Your task to perform on an android device: change notification settings in the gmail app Image 0: 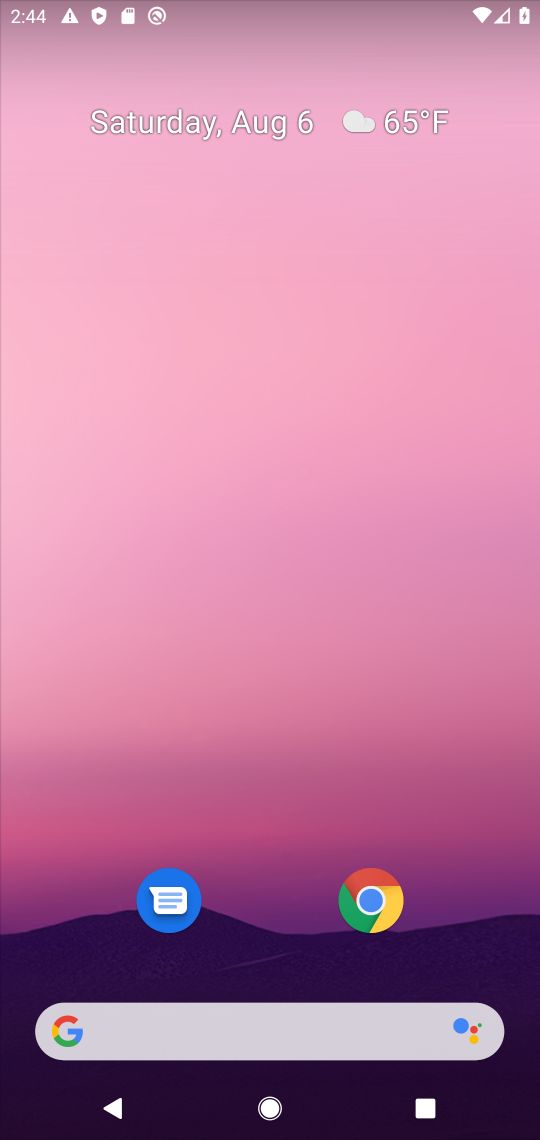
Step 0: press home button
Your task to perform on an android device: change notification settings in the gmail app Image 1: 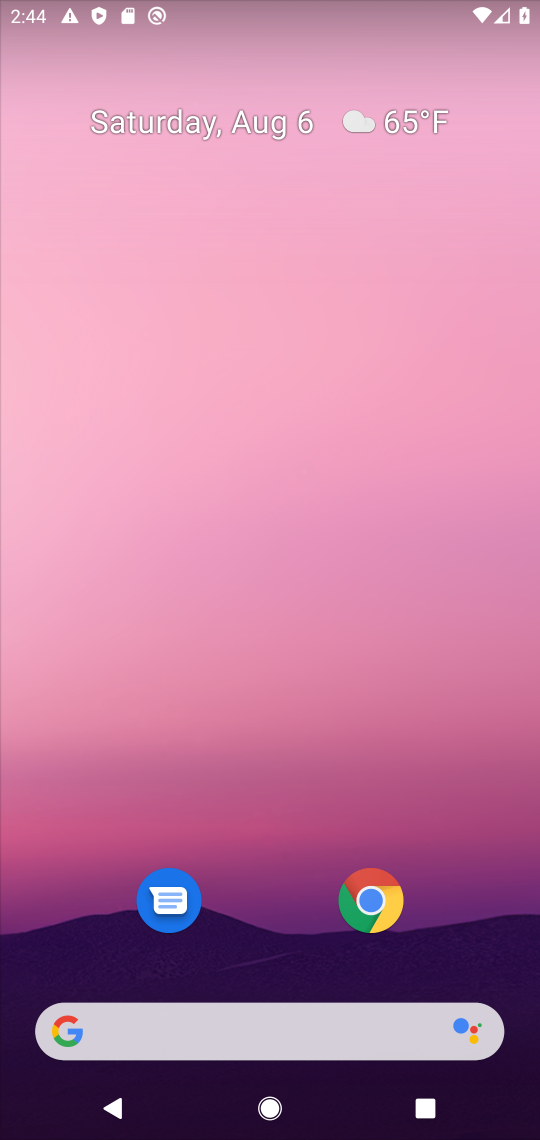
Step 1: press home button
Your task to perform on an android device: change notification settings in the gmail app Image 2: 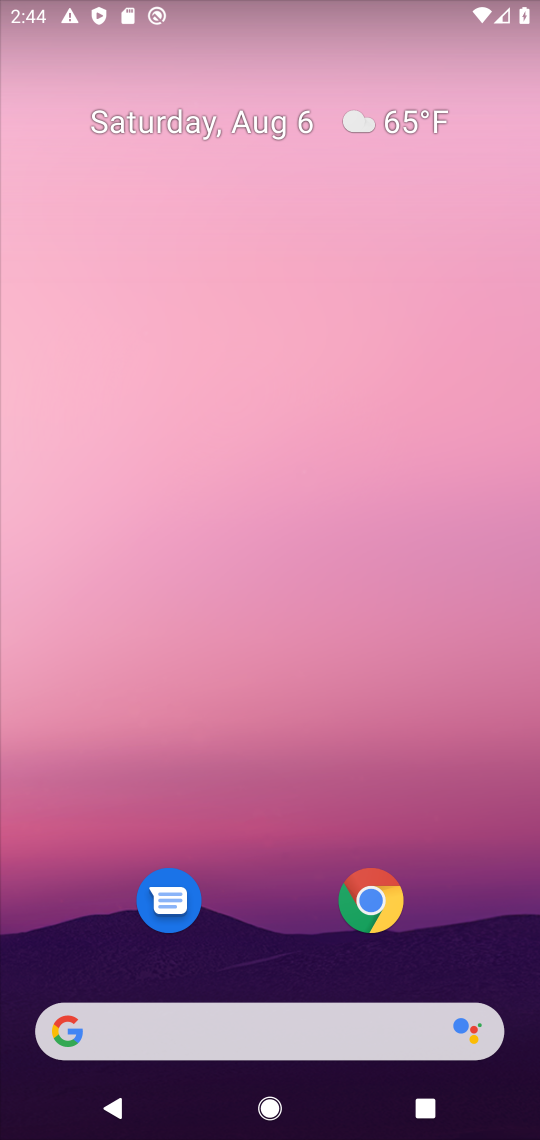
Step 2: drag from (262, 935) to (291, 0)
Your task to perform on an android device: change notification settings in the gmail app Image 3: 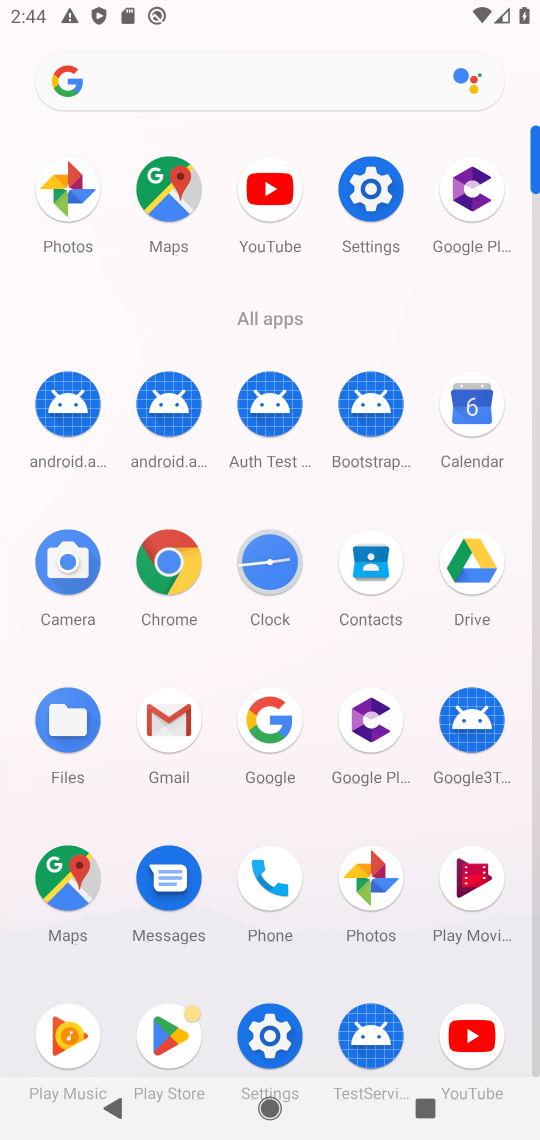
Step 3: click (159, 723)
Your task to perform on an android device: change notification settings in the gmail app Image 4: 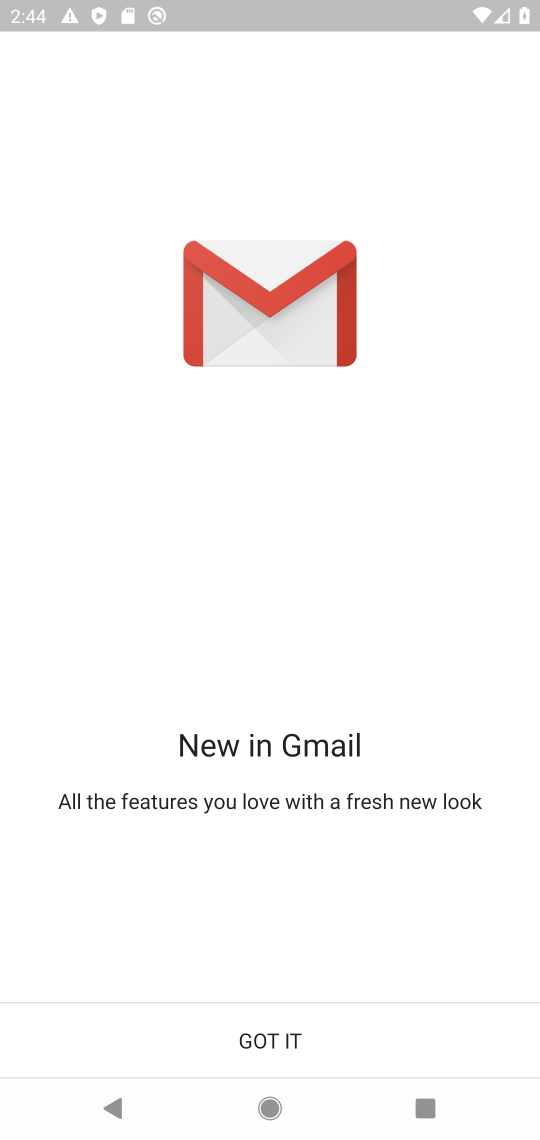
Step 4: click (268, 1037)
Your task to perform on an android device: change notification settings in the gmail app Image 5: 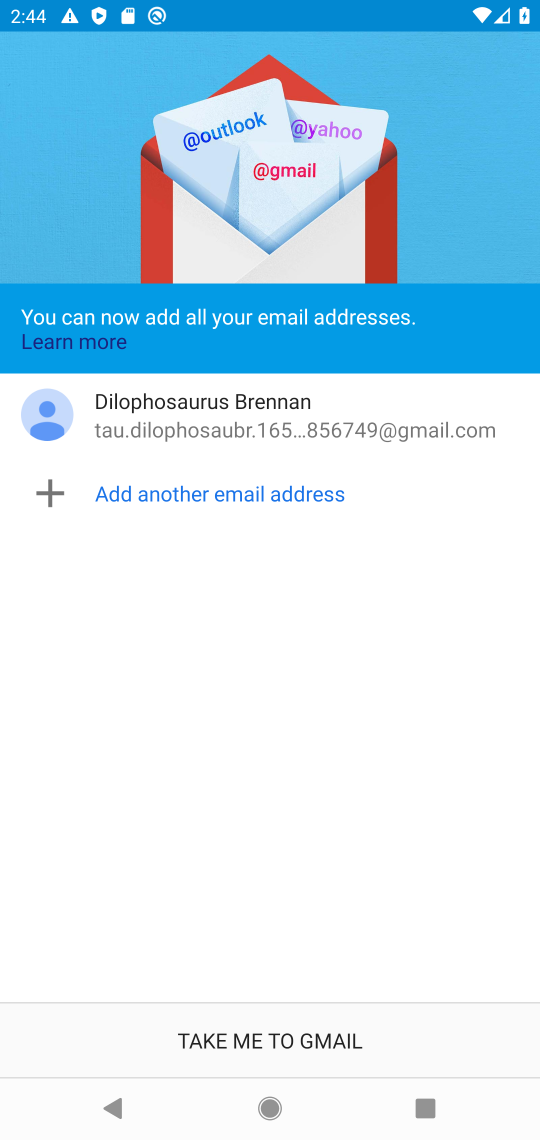
Step 5: click (277, 1043)
Your task to perform on an android device: change notification settings in the gmail app Image 6: 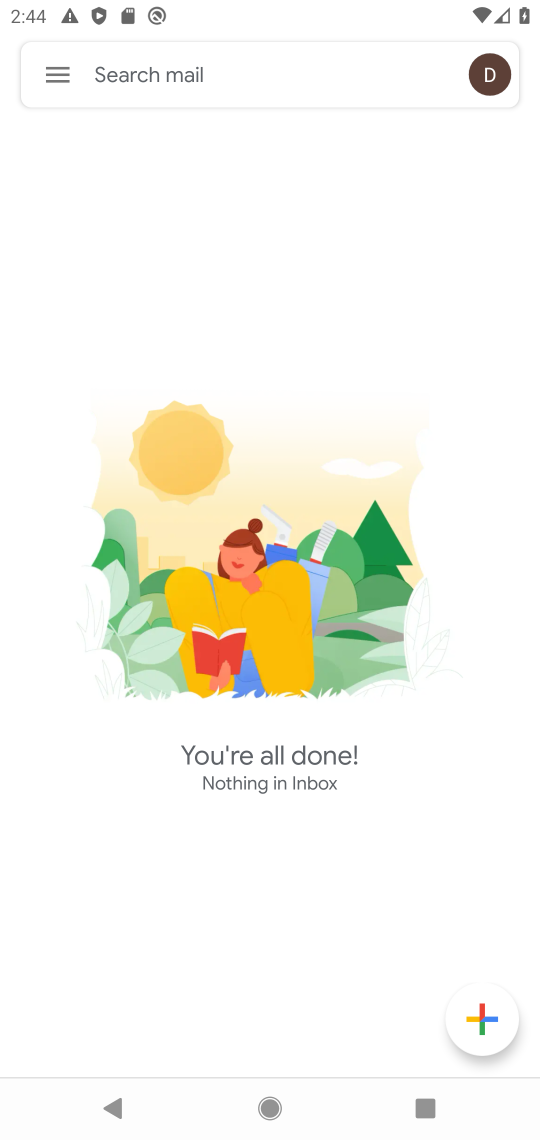
Step 6: click (53, 70)
Your task to perform on an android device: change notification settings in the gmail app Image 7: 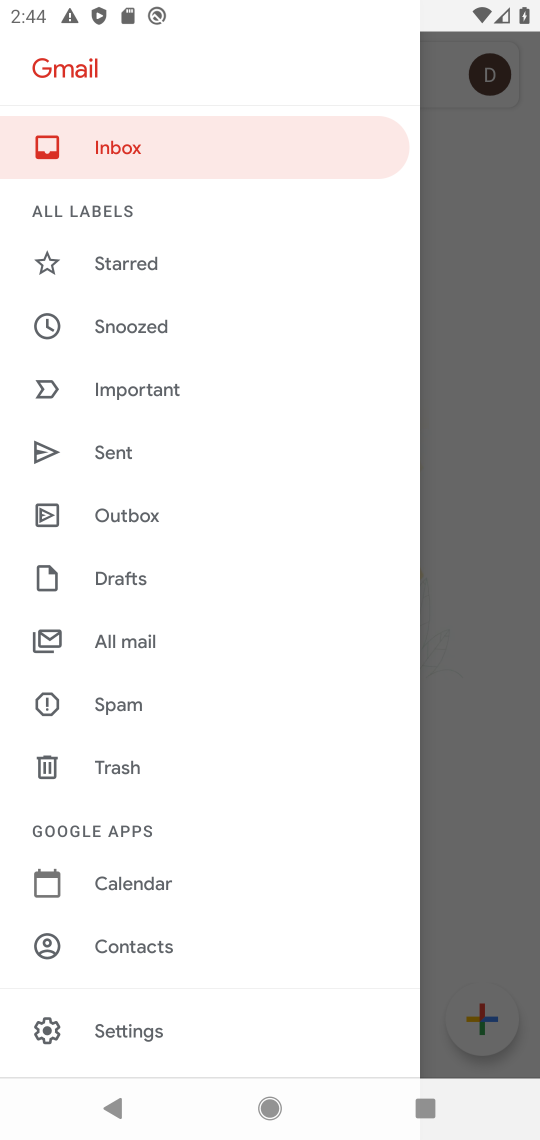
Step 7: click (119, 1023)
Your task to perform on an android device: change notification settings in the gmail app Image 8: 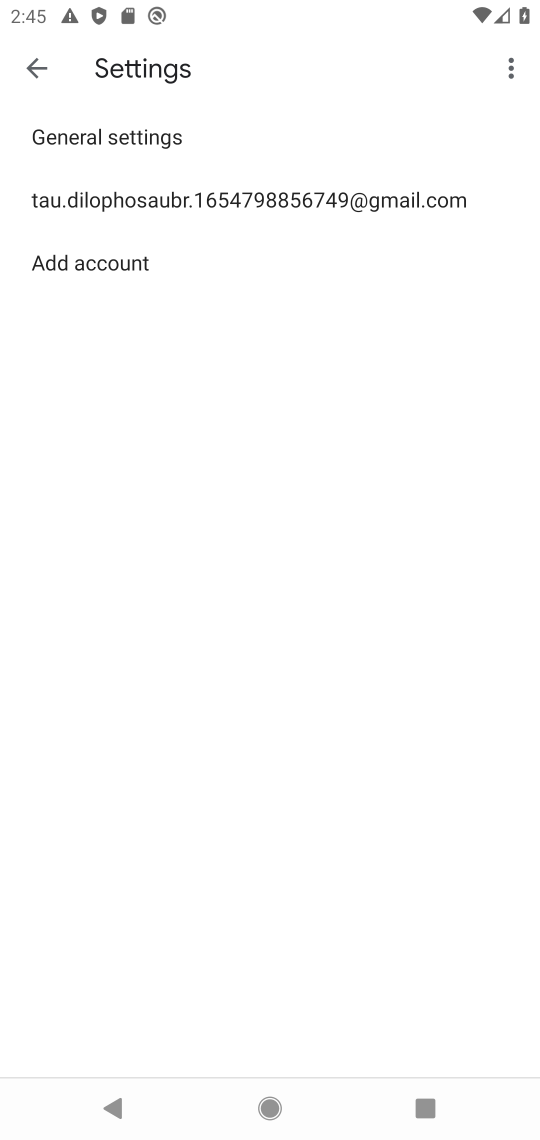
Step 8: click (122, 187)
Your task to perform on an android device: change notification settings in the gmail app Image 9: 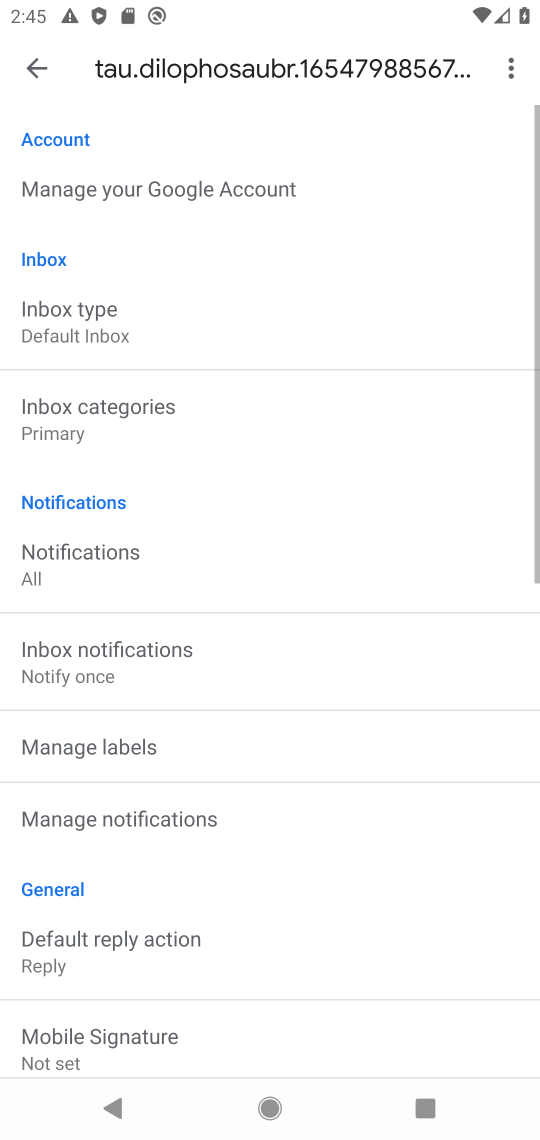
Step 9: click (67, 821)
Your task to perform on an android device: change notification settings in the gmail app Image 10: 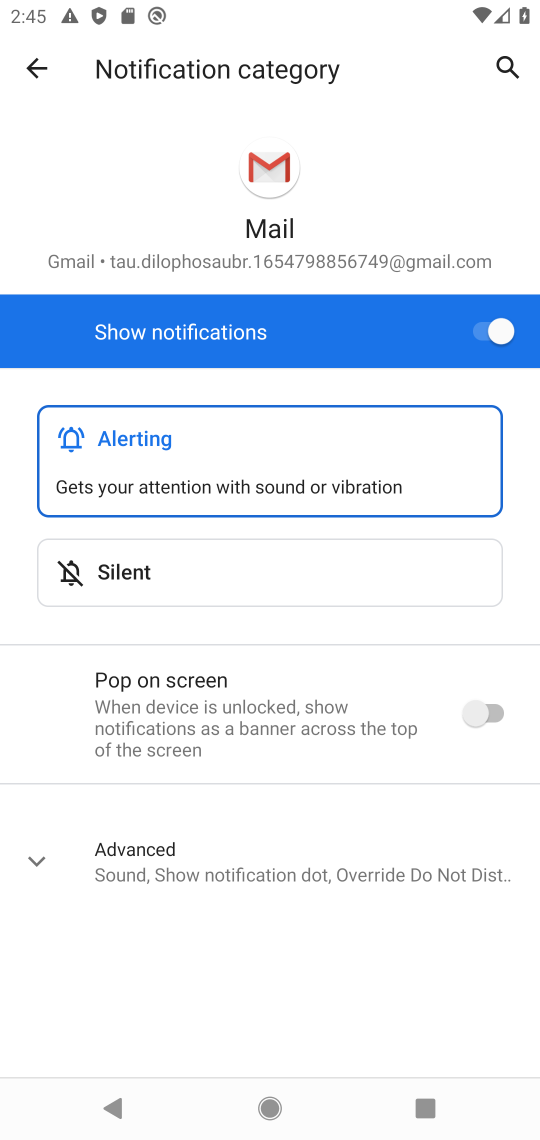
Step 10: click (499, 323)
Your task to perform on an android device: change notification settings in the gmail app Image 11: 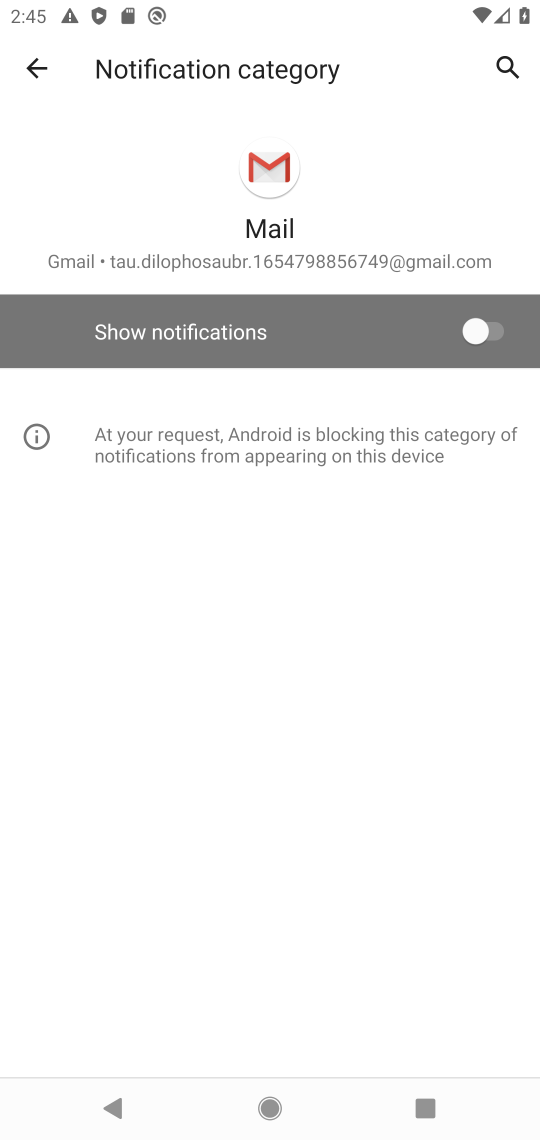
Step 11: task complete